Your task to perform on an android device: Open Google Maps Image 0: 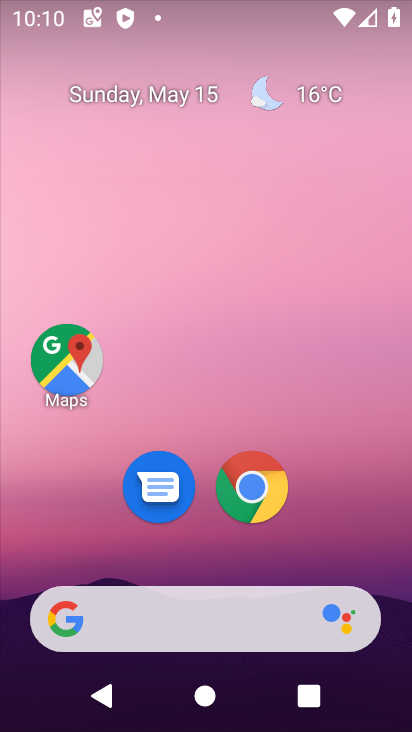
Step 0: click (68, 367)
Your task to perform on an android device: Open Google Maps Image 1: 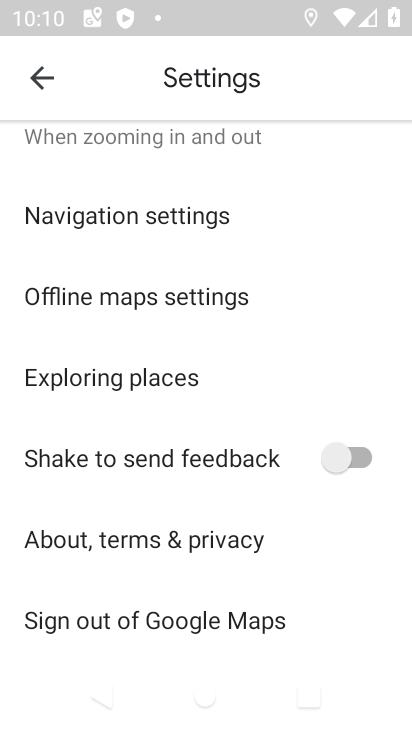
Step 1: task complete